Your task to perform on an android device: Open settings Image 0: 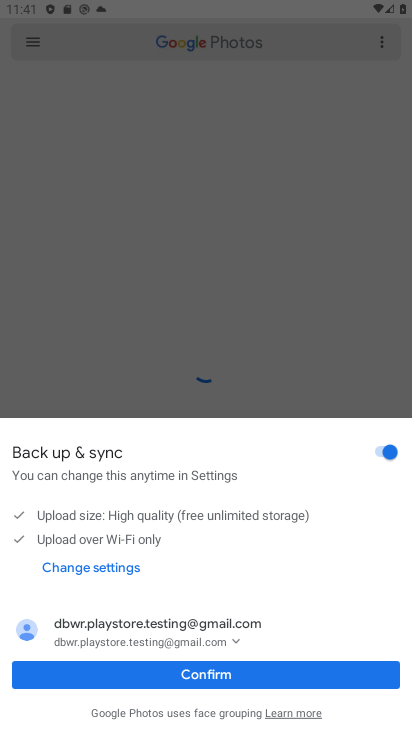
Step 0: press home button
Your task to perform on an android device: Open settings Image 1: 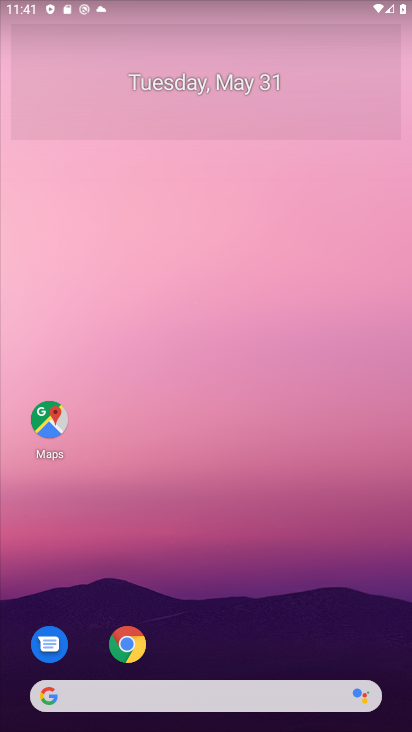
Step 1: drag from (303, 625) to (318, 197)
Your task to perform on an android device: Open settings Image 2: 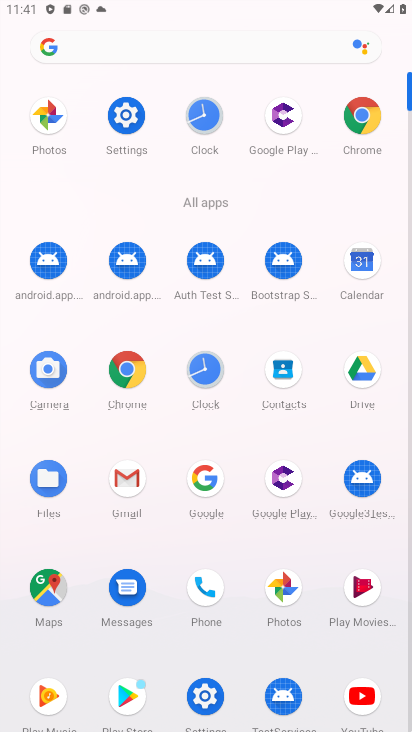
Step 2: click (206, 687)
Your task to perform on an android device: Open settings Image 3: 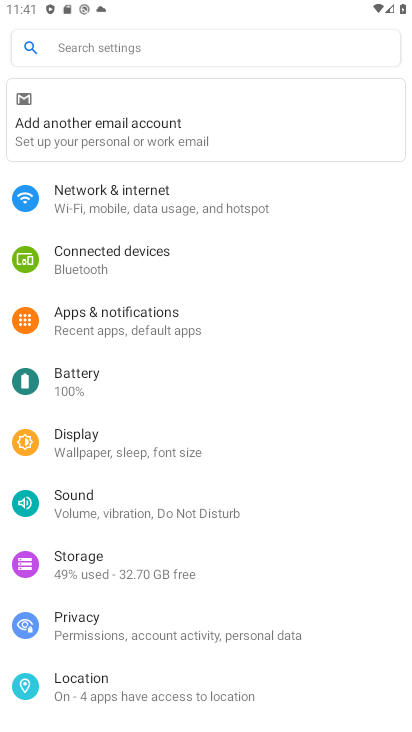
Step 3: task complete